Your task to perform on an android device: toggle priority inbox in the gmail app Image 0: 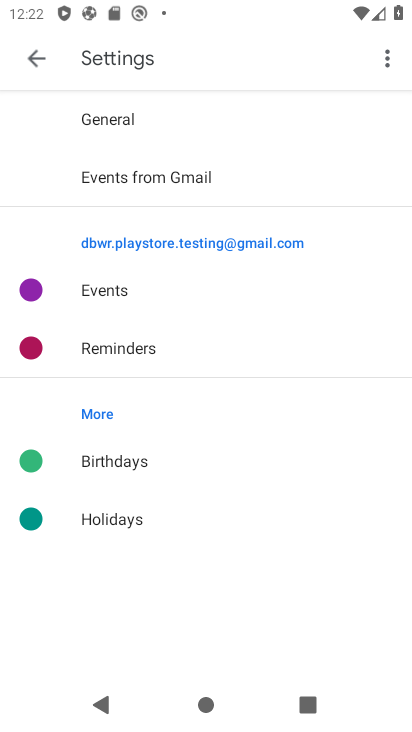
Step 0: press home button
Your task to perform on an android device: toggle priority inbox in the gmail app Image 1: 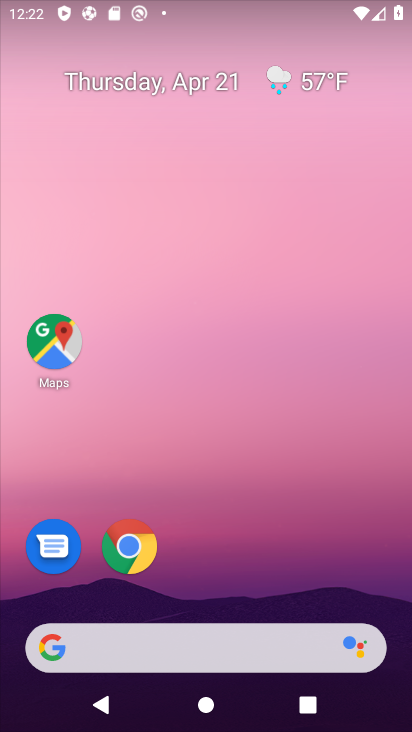
Step 1: drag from (281, 485) to (224, 0)
Your task to perform on an android device: toggle priority inbox in the gmail app Image 2: 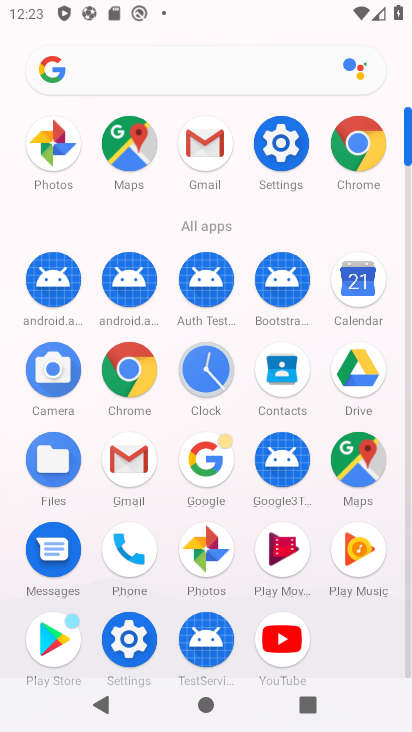
Step 2: click (130, 466)
Your task to perform on an android device: toggle priority inbox in the gmail app Image 3: 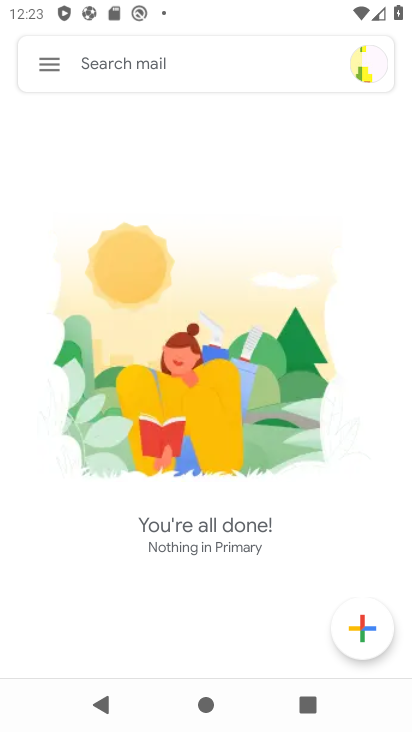
Step 3: click (39, 65)
Your task to perform on an android device: toggle priority inbox in the gmail app Image 4: 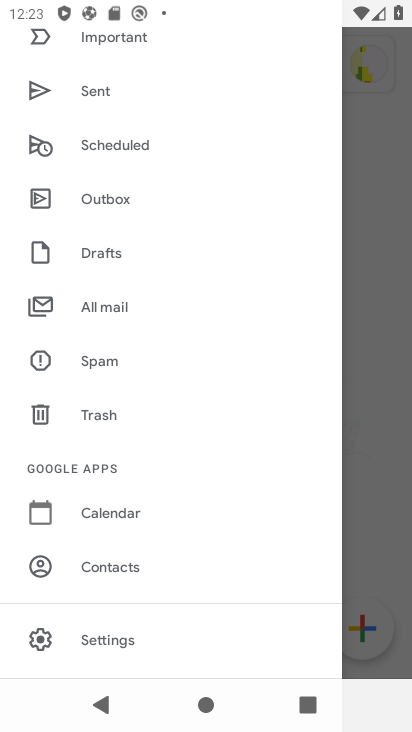
Step 4: click (113, 644)
Your task to perform on an android device: toggle priority inbox in the gmail app Image 5: 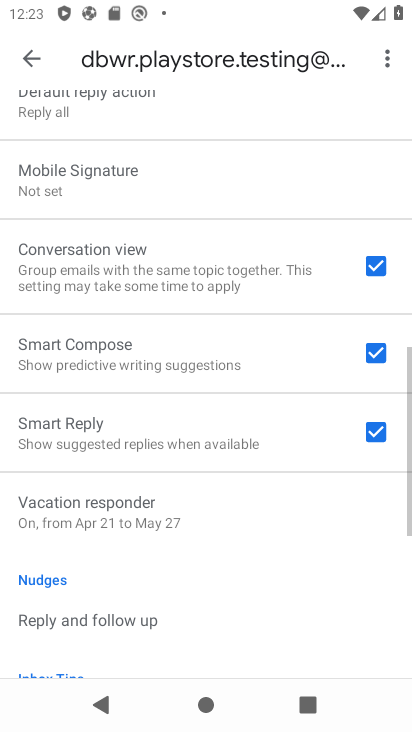
Step 5: drag from (153, 101) to (153, 610)
Your task to perform on an android device: toggle priority inbox in the gmail app Image 6: 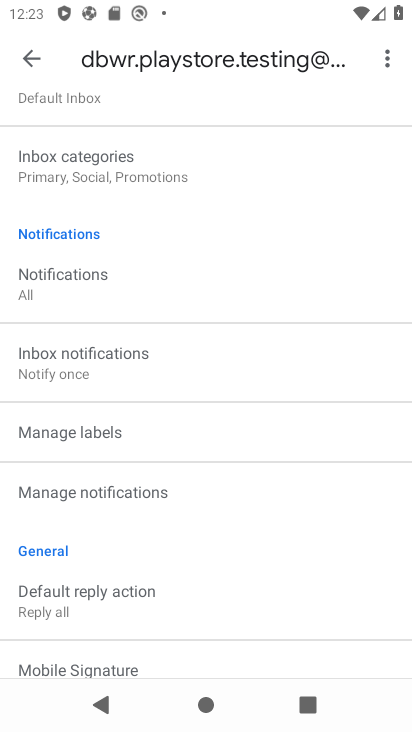
Step 6: drag from (171, 175) to (137, 569)
Your task to perform on an android device: toggle priority inbox in the gmail app Image 7: 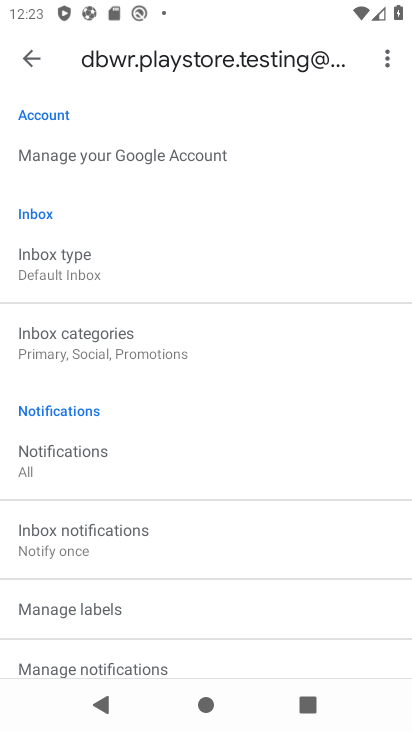
Step 7: drag from (119, 204) to (108, 310)
Your task to perform on an android device: toggle priority inbox in the gmail app Image 8: 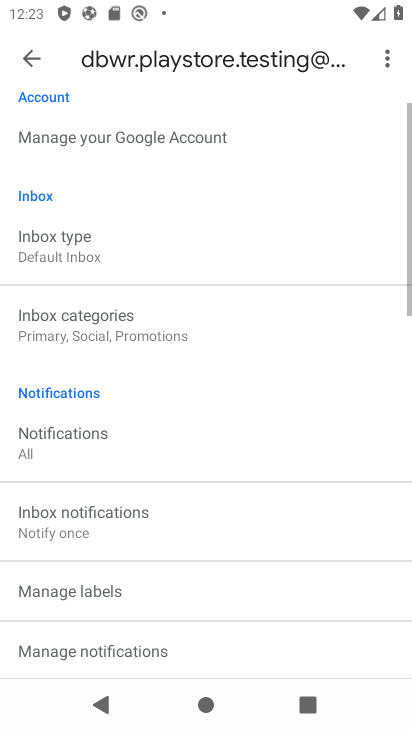
Step 8: click (79, 274)
Your task to perform on an android device: toggle priority inbox in the gmail app Image 9: 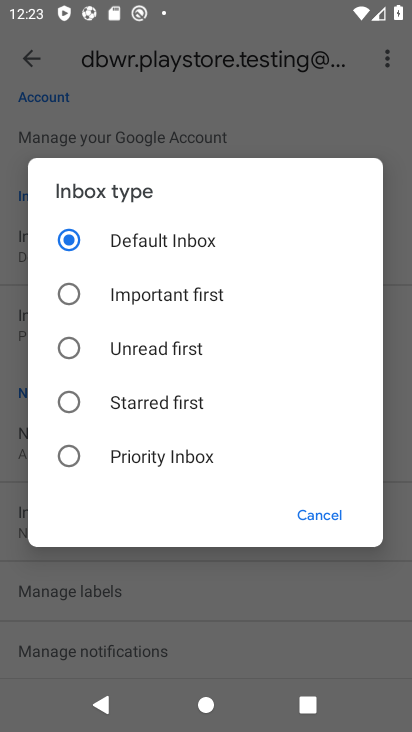
Step 9: click (122, 457)
Your task to perform on an android device: toggle priority inbox in the gmail app Image 10: 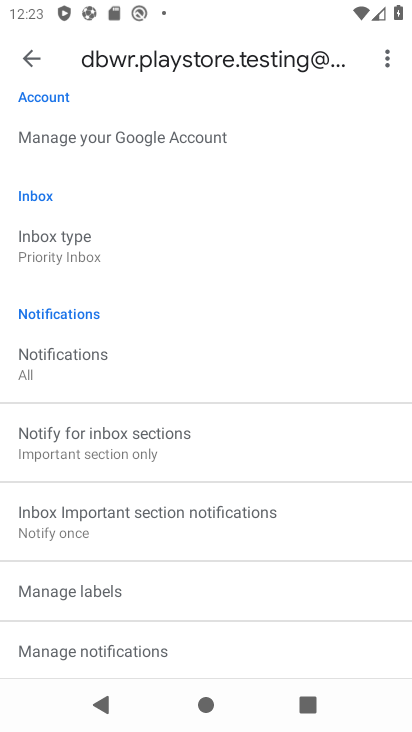
Step 10: task complete